Your task to perform on an android device: Open the stopwatch Image 0: 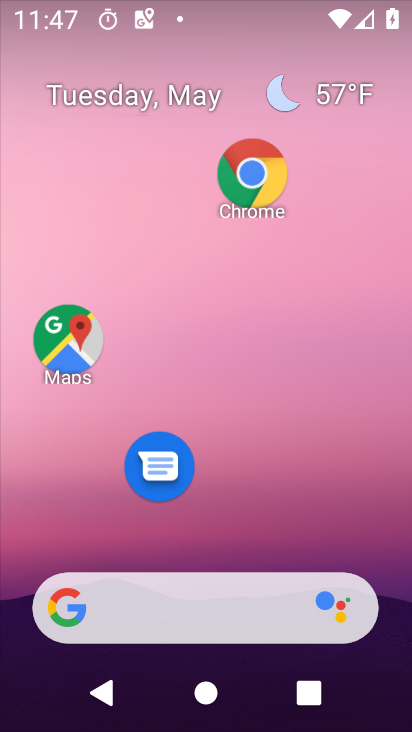
Step 0: drag from (199, 517) to (230, 74)
Your task to perform on an android device: Open the stopwatch Image 1: 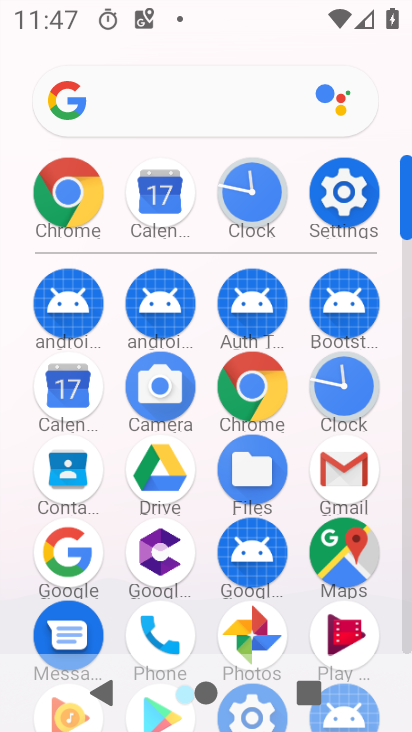
Step 1: click (339, 394)
Your task to perform on an android device: Open the stopwatch Image 2: 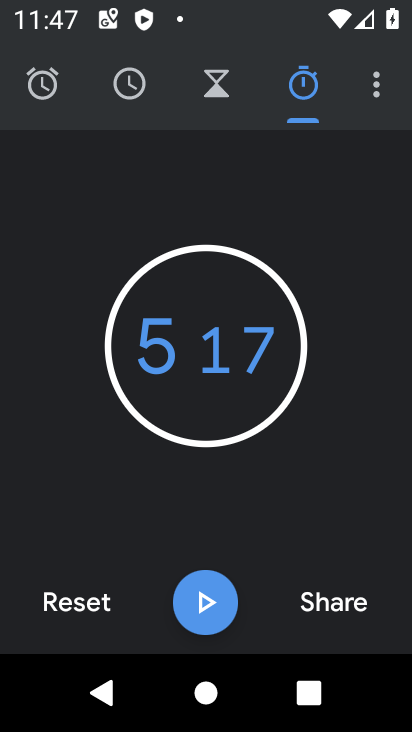
Step 2: task complete